Your task to perform on an android device: delete browsing data in the chrome app Image 0: 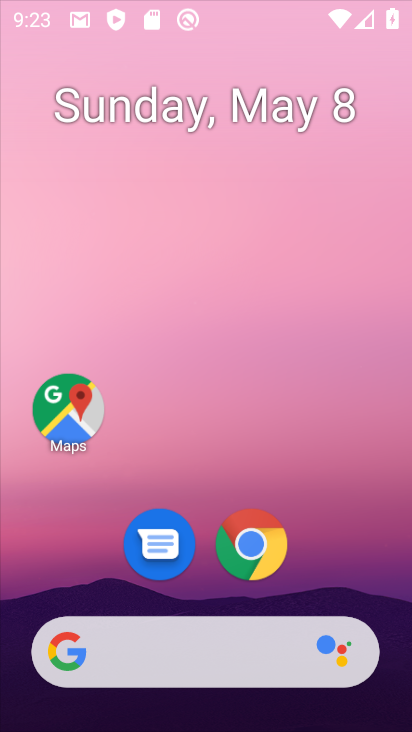
Step 0: click (352, 89)
Your task to perform on an android device: delete browsing data in the chrome app Image 1: 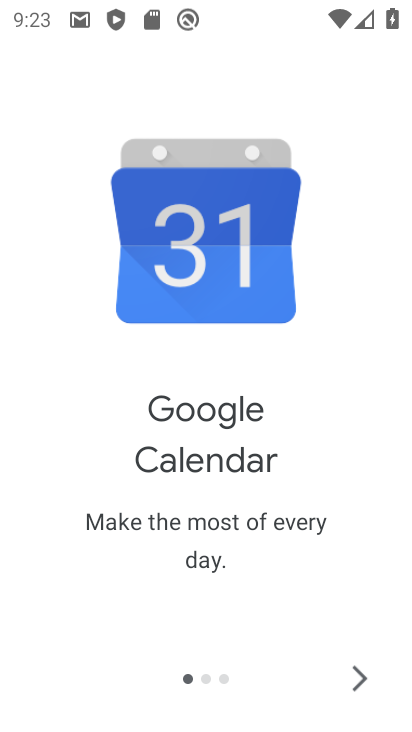
Step 1: press home button
Your task to perform on an android device: delete browsing data in the chrome app Image 2: 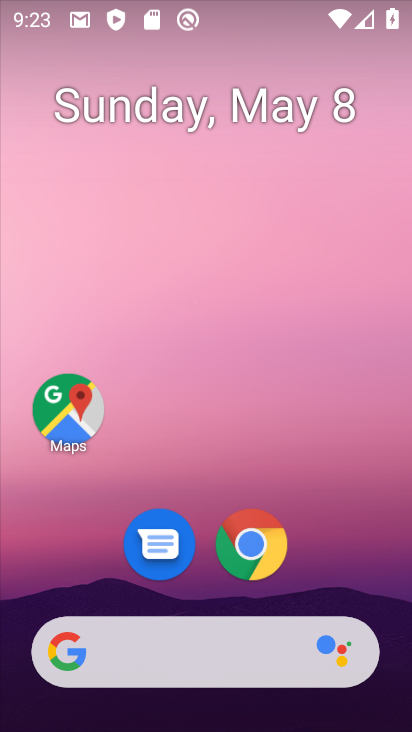
Step 2: drag from (395, 526) to (331, 35)
Your task to perform on an android device: delete browsing data in the chrome app Image 3: 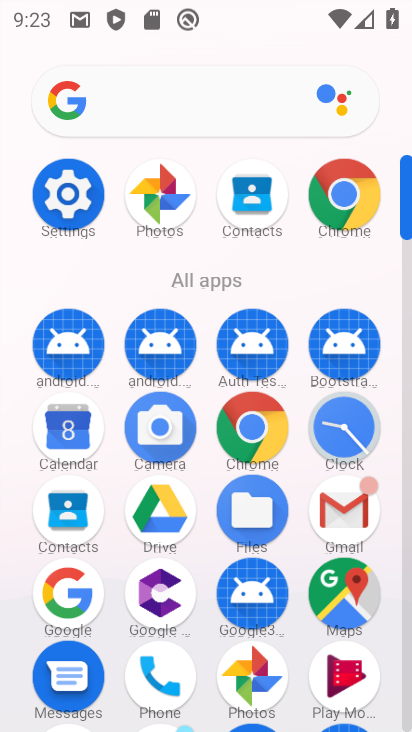
Step 3: click (332, 216)
Your task to perform on an android device: delete browsing data in the chrome app Image 4: 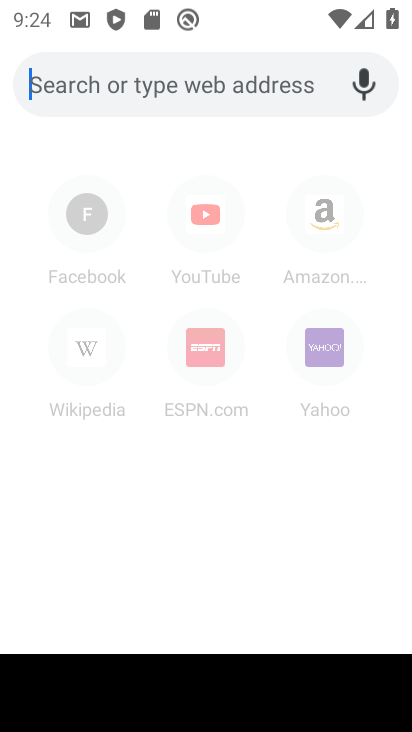
Step 4: press home button
Your task to perform on an android device: delete browsing data in the chrome app Image 5: 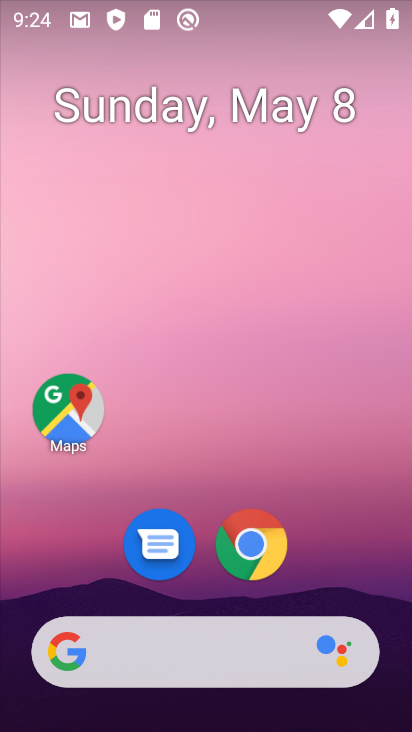
Step 5: click (226, 552)
Your task to perform on an android device: delete browsing data in the chrome app Image 6: 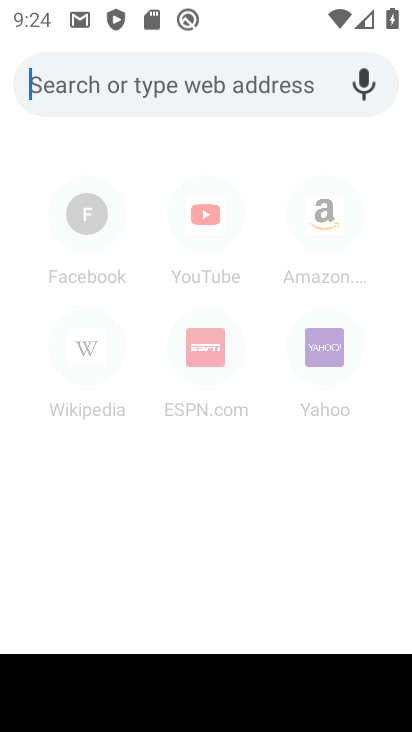
Step 6: press home button
Your task to perform on an android device: delete browsing data in the chrome app Image 7: 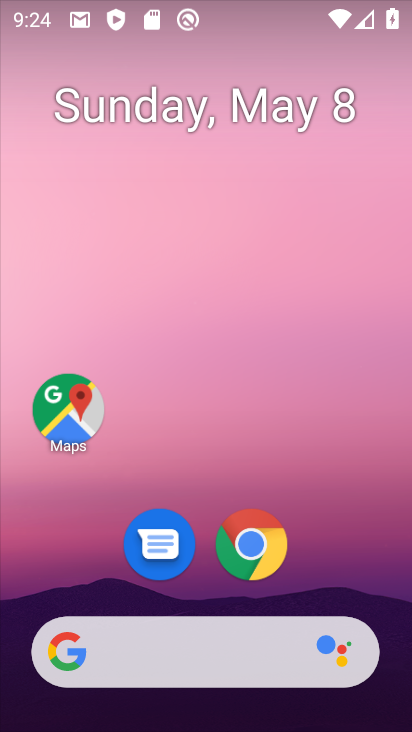
Step 7: click (234, 540)
Your task to perform on an android device: delete browsing data in the chrome app Image 8: 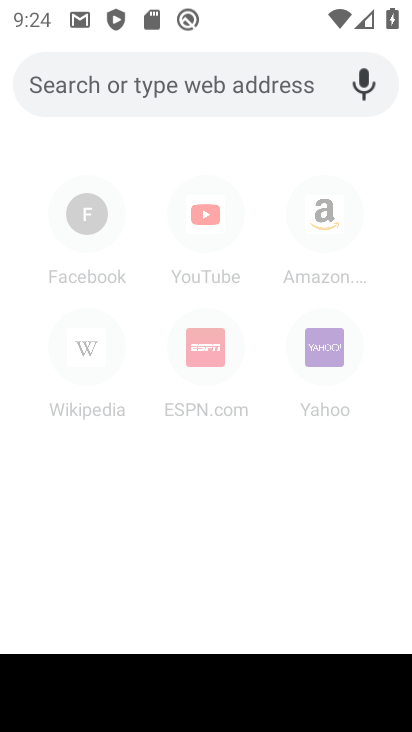
Step 8: press back button
Your task to perform on an android device: delete browsing data in the chrome app Image 9: 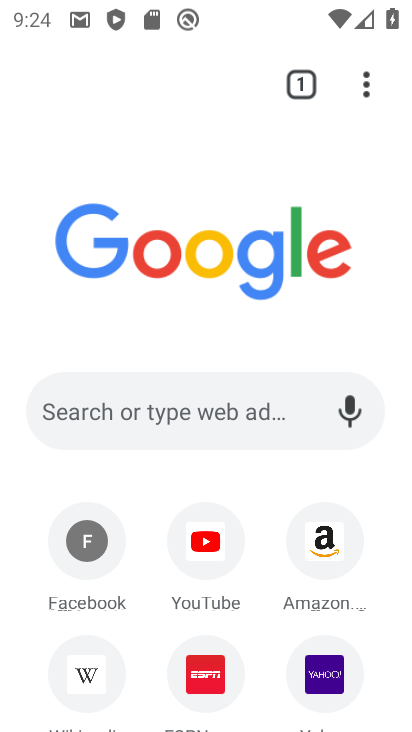
Step 9: click (371, 86)
Your task to perform on an android device: delete browsing data in the chrome app Image 10: 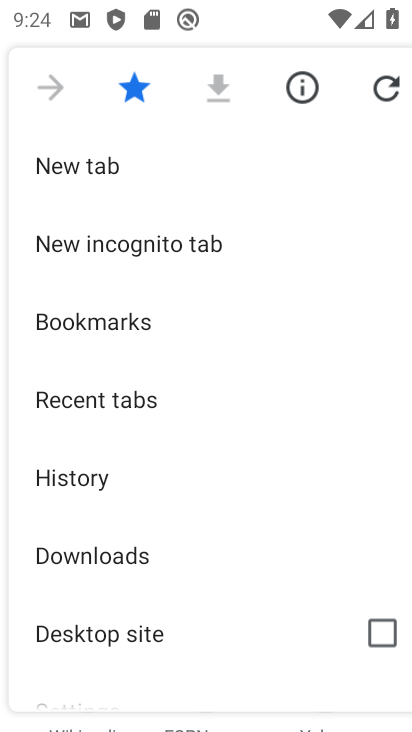
Step 10: click (147, 499)
Your task to perform on an android device: delete browsing data in the chrome app Image 11: 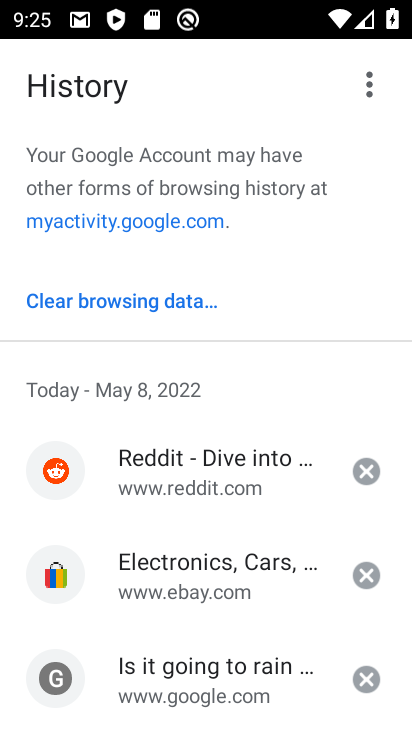
Step 11: click (172, 289)
Your task to perform on an android device: delete browsing data in the chrome app Image 12: 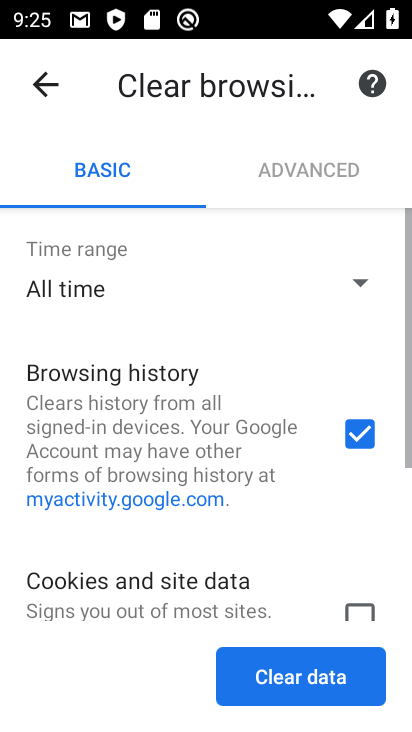
Step 12: click (315, 685)
Your task to perform on an android device: delete browsing data in the chrome app Image 13: 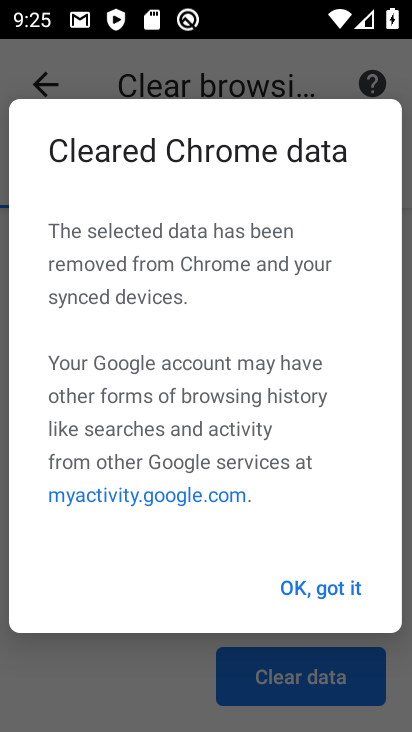
Step 13: click (317, 597)
Your task to perform on an android device: delete browsing data in the chrome app Image 14: 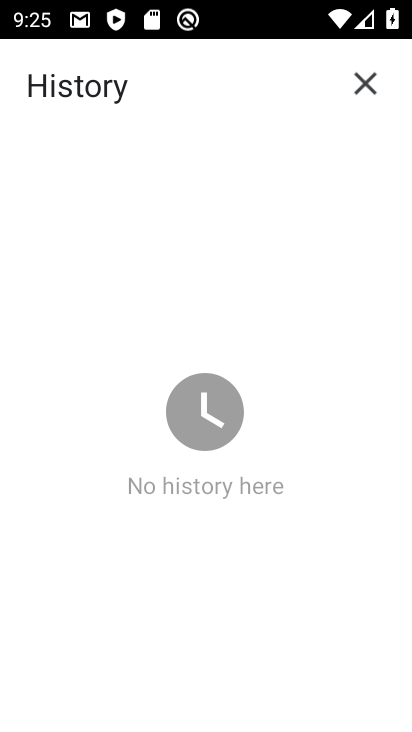
Step 14: task complete